Your task to perform on an android device: turn on priority inbox in the gmail app Image 0: 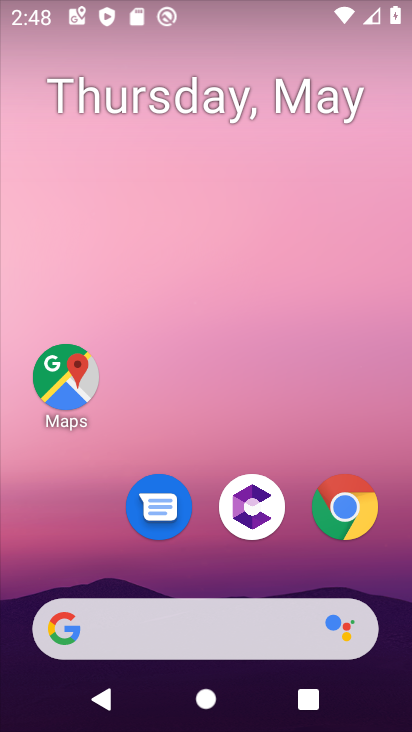
Step 0: press home button
Your task to perform on an android device: turn on priority inbox in the gmail app Image 1: 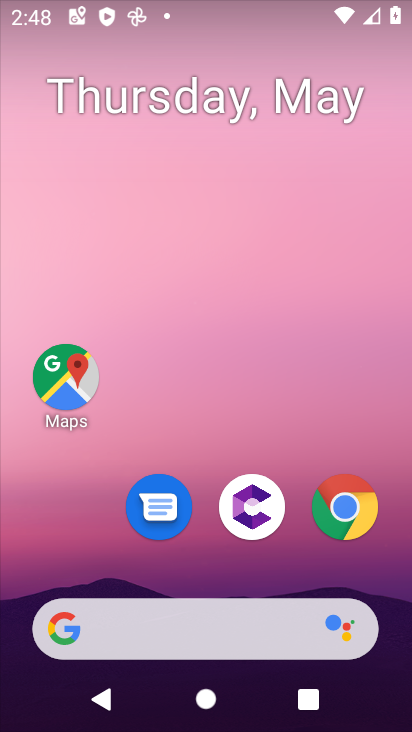
Step 1: drag from (293, 567) to (212, 59)
Your task to perform on an android device: turn on priority inbox in the gmail app Image 2: 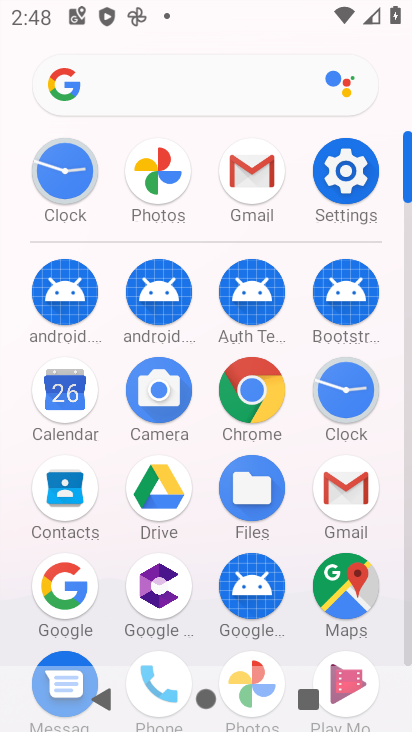
Step 2: click (250, 159)
Your task to perform on an android device: turn on priority inbox in the gmail app Image 3: 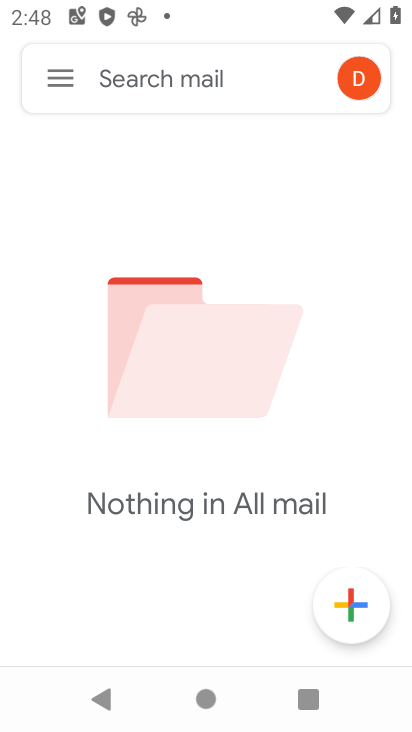
Step 3: click (52, 79)
Your task to perform on an android device: turn on priority inbox in the gmail app Image 4: 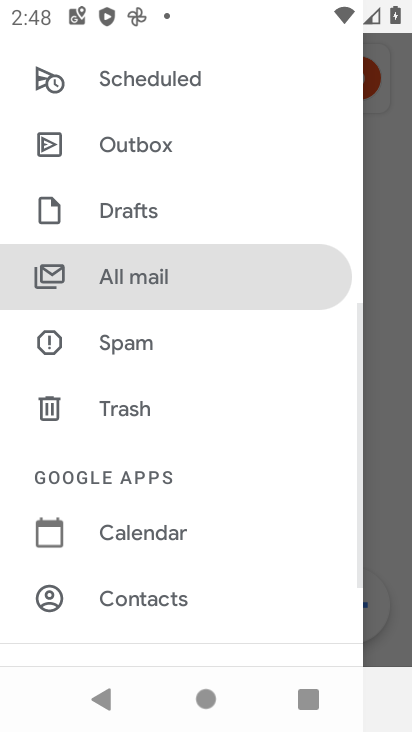
Step 4: drag from (142, 553) to (82, 207)
Your task to perform on an android device: turn on priority inbox in the gmail app Image 5: 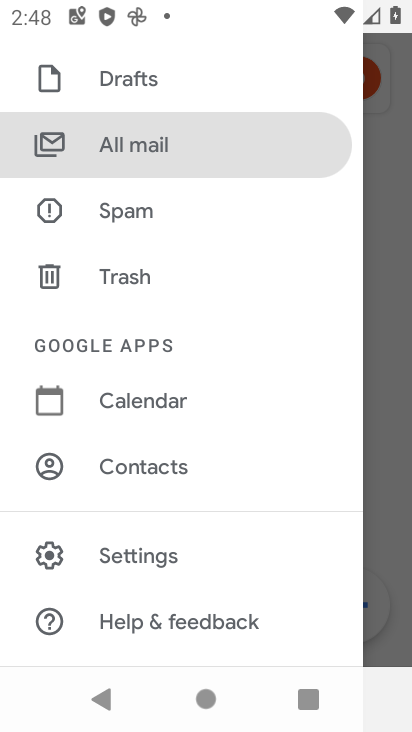
Step 5: click (178, 554)
Your task to perform on an android device: turn on priority inbox in the gmail app Image 6: 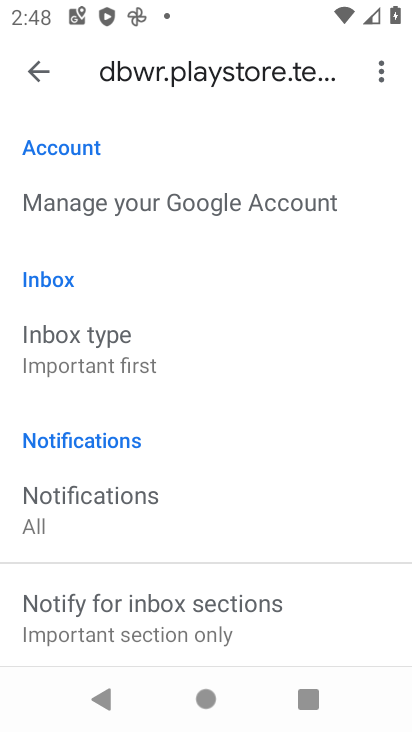
Step 6: drag from (214, 517) to (194, 380)
Your task to perform on an android device: turn on priority inbox in the gmail app Image 7: 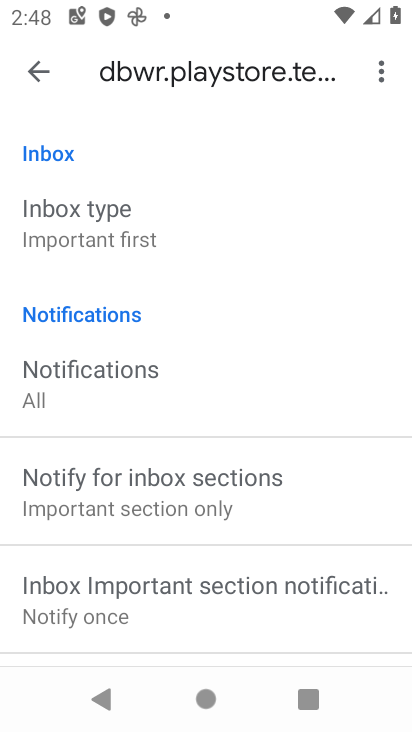
Step 7: click (92, 211)
Your task to perform on an android device: turn on priority inbox in the gmail app Image 8: 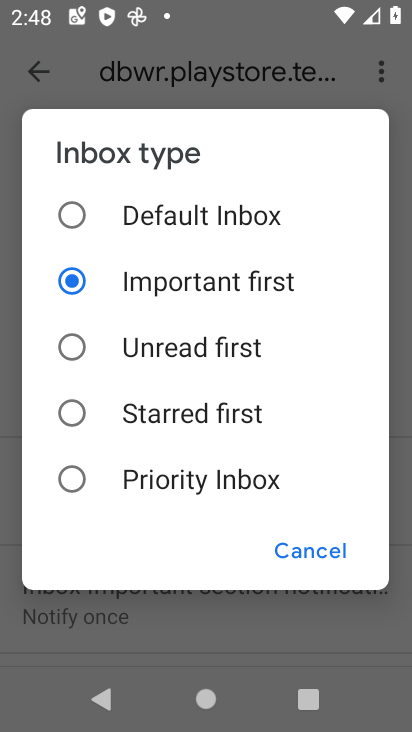
Step 8: click (74, 473)
Your task to perform on an android device: turn on priority inbox in the gmail app Image 9: 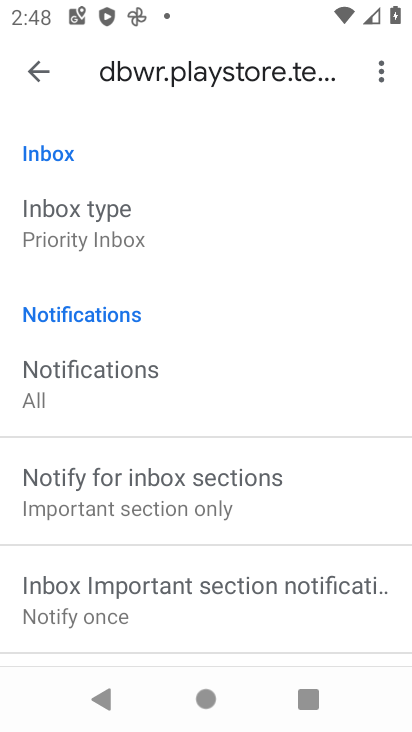
Step 9: task complete